Your task to perform on an android device: clear history in the chrome app Image 0: 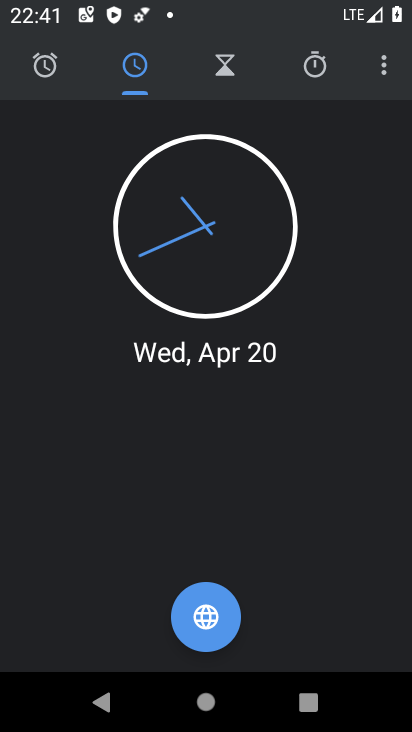
Step 0: press home button
Your task to perform on an android device: clear history in the chrome app Image 1: 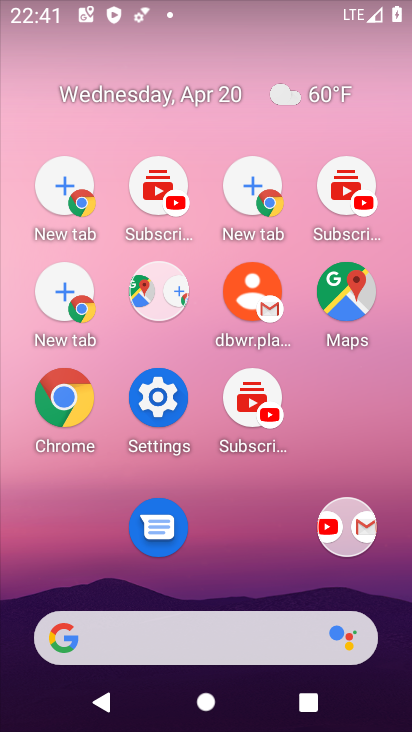
Step 1: drag from (263, 304) to (205, 87)
Your task to perform on an android device: clear history in the chrome app Image 2: 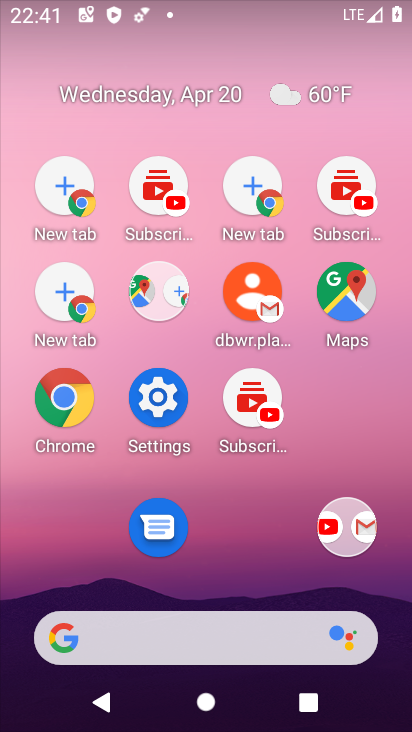
Step 2: drag from (279, 562) to (230, 184)
Your task to perform on an android device: clear history in the chrome app Image 3: 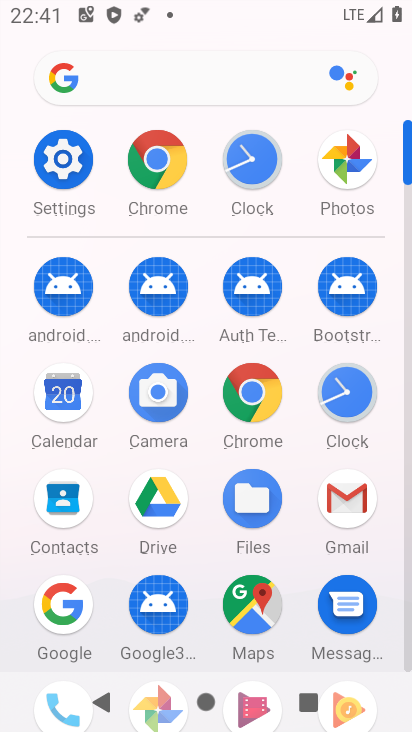
Step 3: click (156, 174)
Your task to perform on an android device: clear history in the chrome app Image 4: 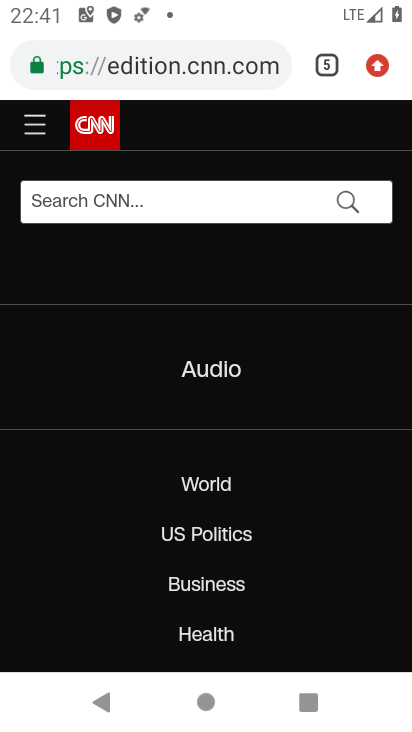
Step 4: drag from (381, 67) to (169, 454)
Your task to perform on an android device: clear history in the chrome app Image 5: 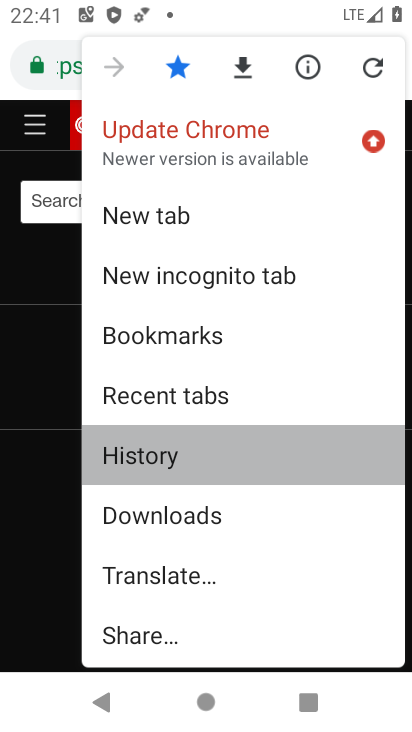
Step 5: click (169, 454)
Your task to perform on an android device: clear history in the chrome app Image 6: 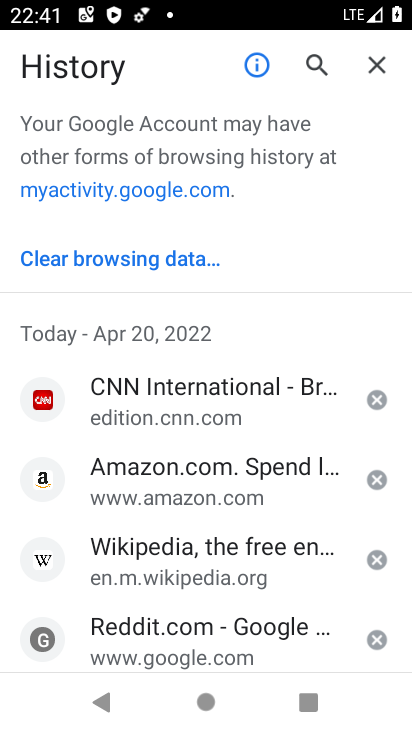
Step 6: click (374, 399)
Your task to perform on an android device: clear history in the chrome app Image 7: 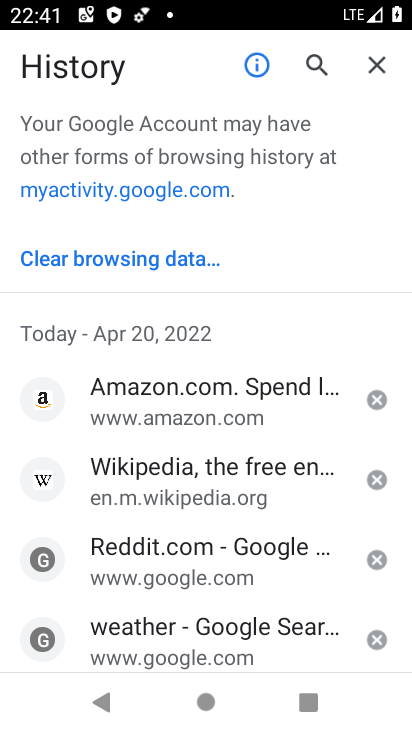
Step 7: click (216, 261)
Your task to perform on an android device: clear history in the chrome app Image 8: 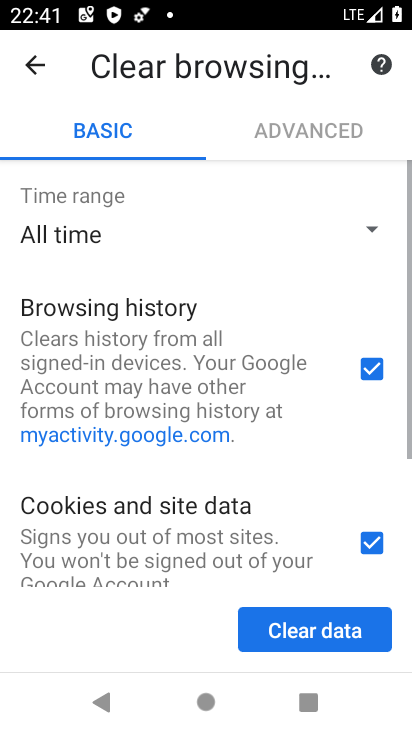
Step 8: click (326, 637)
Your task to perform on an android device: clear history in the chrome app Image 9: 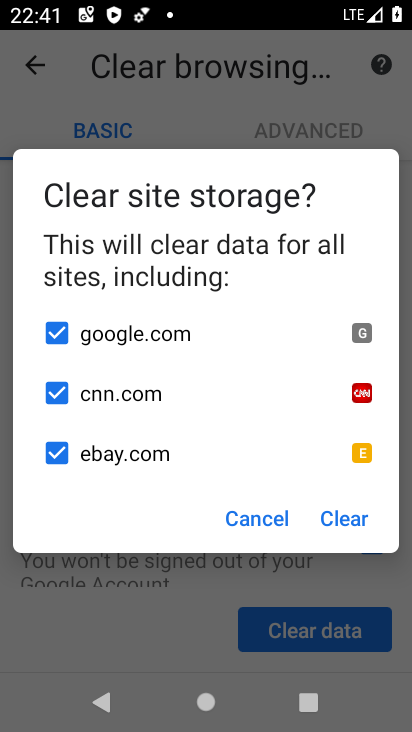
Step 9: click (349, 522)
Your task to perform on an android device: clear history in the chrome app Image 10: 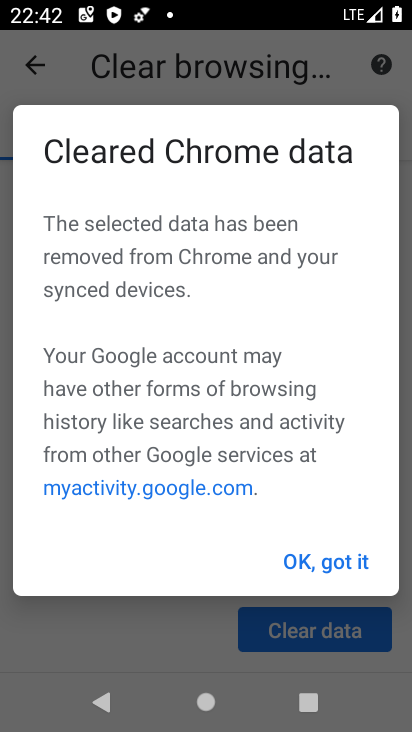
Step 10: click (341, 554)
Your task to perform on an android device: clear history in the chrome app Image 11: 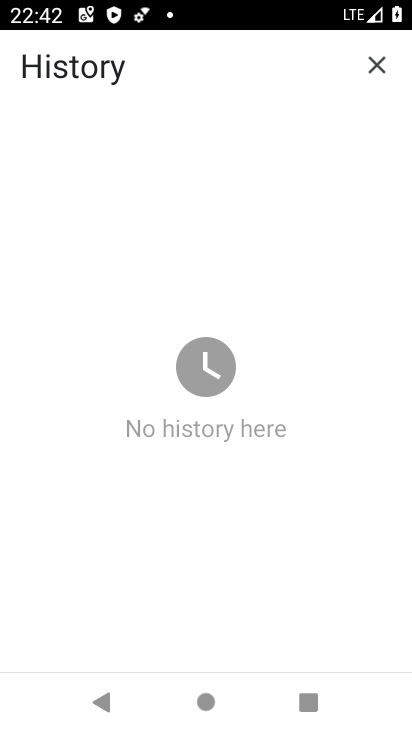
Step 11: task complete